Your task to perform on an android device: change keyboard looks Image 0: 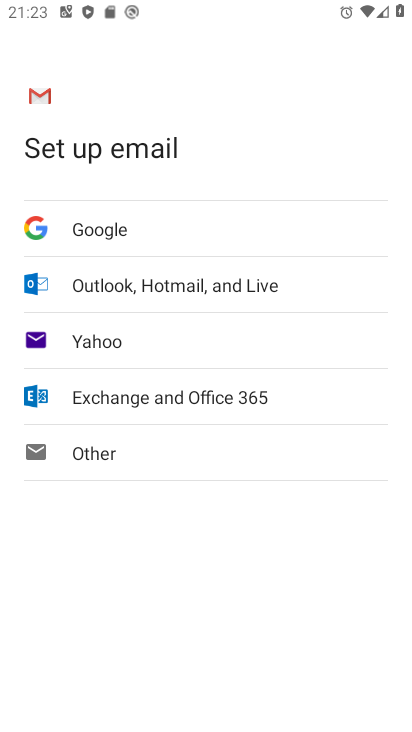
Step 0: press home button
Your task to perform on an android device: change keyboard looks Image 1: 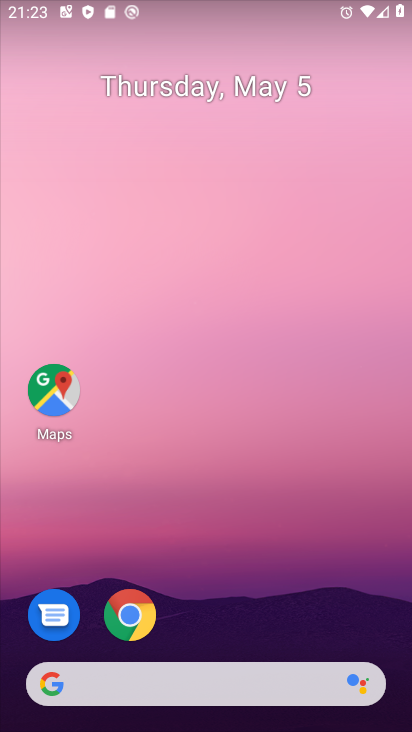
Step 1: drag from (213, 603) to (258, 184)
Your task to perform on an android device: change keyboard looks Image 2: 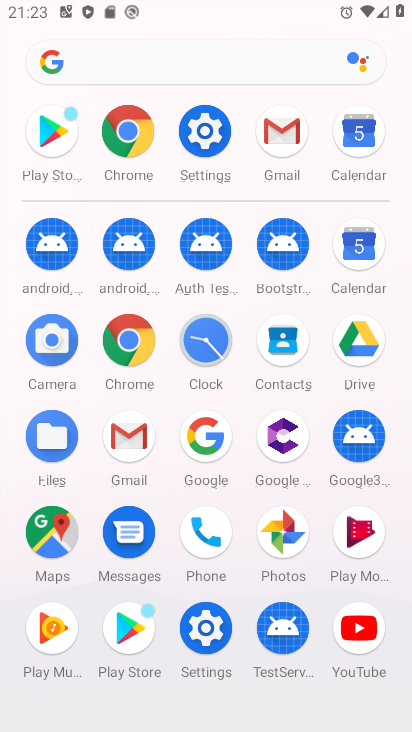
Step 2: click (213, 631)
Your task to perform on an android device: change keyboard looks Image 3: 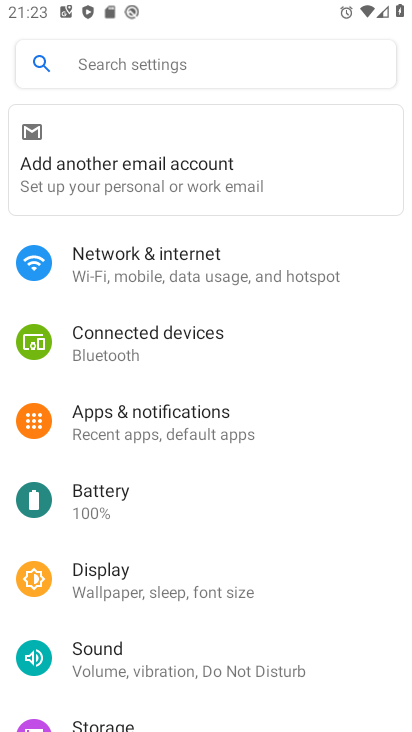
Step 3: drag from (168, 608) to (233, 245)
Your task to perform on an android device: change keyboard looks Image 4: 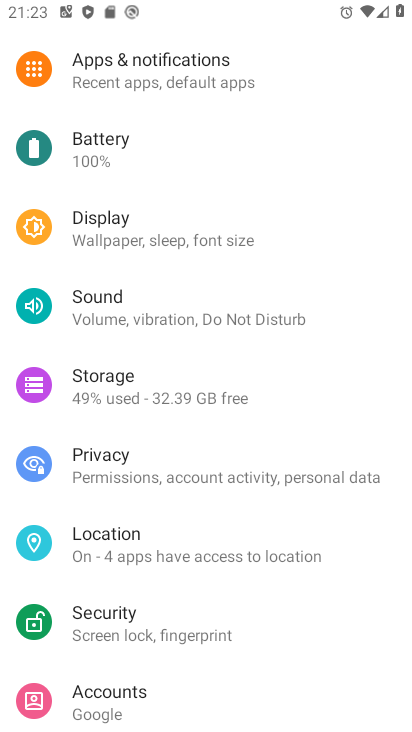
Step 4: drag from (164, 657) to (227, 197)
Your task to perform on an android device: change keyboard looks Image 5: 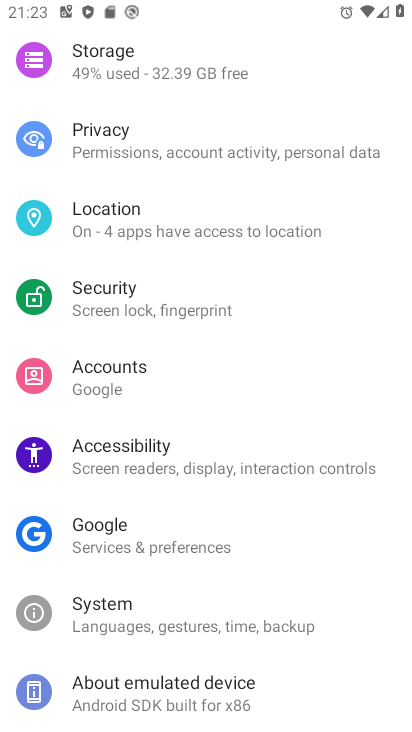
Step 5: click (168, 633)
Your task to perform on an android device: change keyboard looks Image 6: 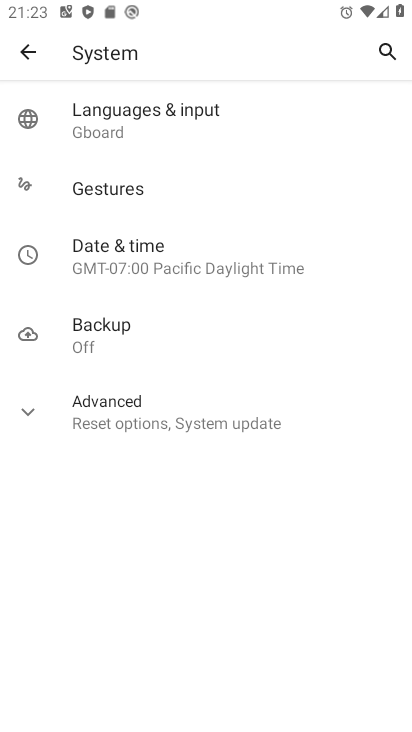
Step 6: click (169, 128)
Your task to perform on an android device: change keyboard looks Image 7: 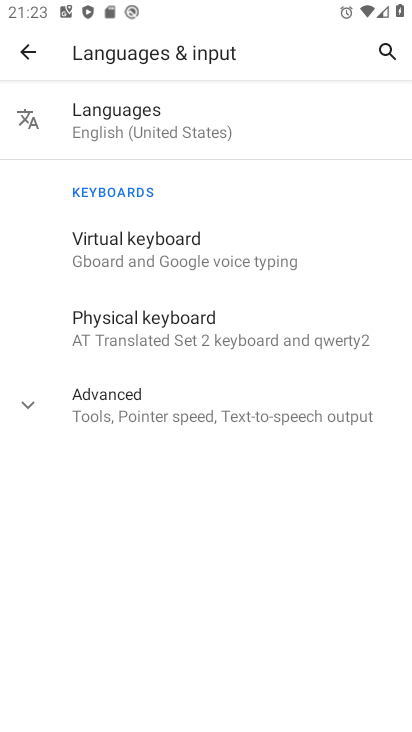
Step 7: click (138, 255)
Your task to perform on an android device: change keyboard looks Image 8: 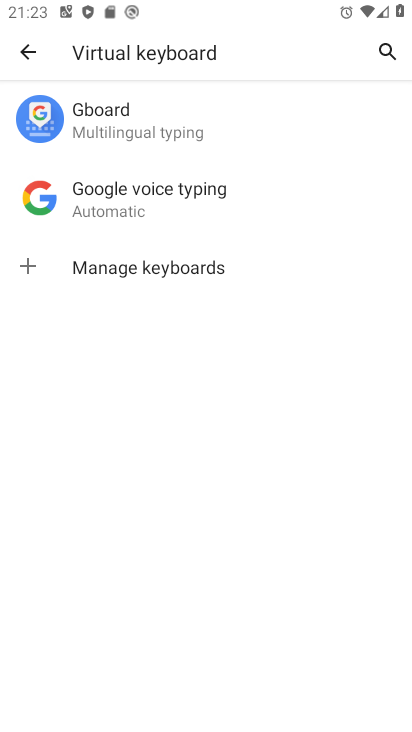
Step 8: click (123, 123)
Your task to perform on an android device: change keyboard looks Image 9: 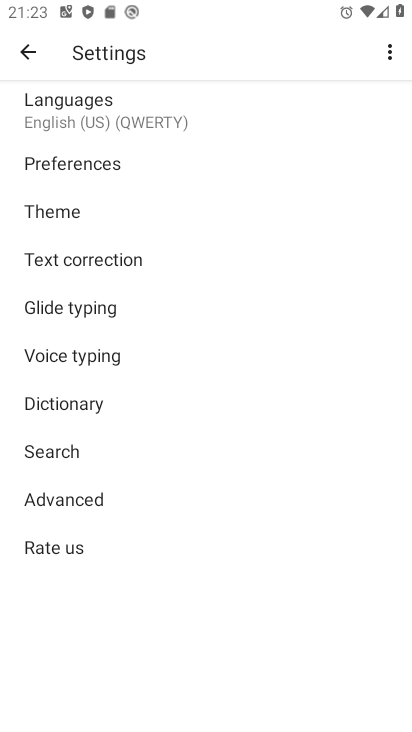
Step 9: click (50, 201)
Your task to perform on an android device: change keyboard looks Image 10: 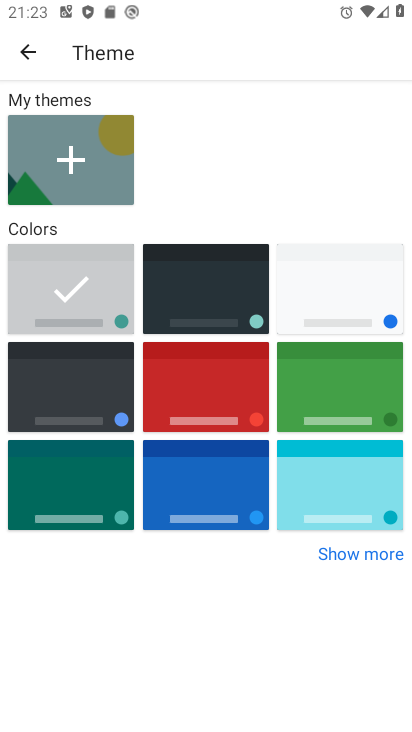
Step 10: click (178, 389)
Your task to perform on an android device: change keyboard looks Image 11: 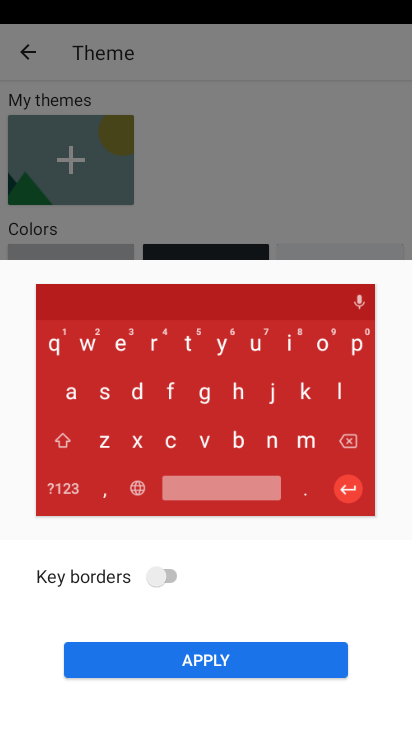
Step 11: click (225, 667)
Your task to perform on an android device: change keyboard looks Image 12: 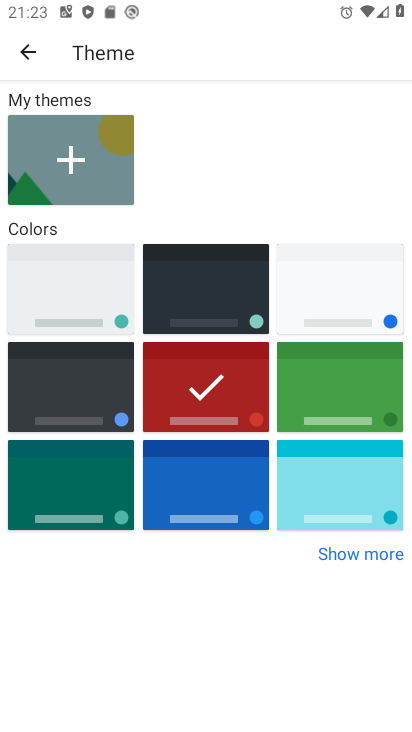
Step 12: task complete